Your task to perform on an android device: open chrome privacy settings Image 0: 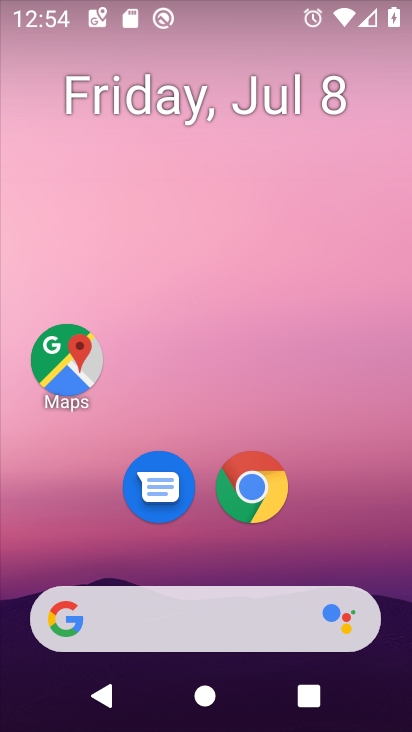
Step 0: drag from (373, 537) to (374, 209)
Your task to perform on an android device: open chrome privacy settings Image 1: 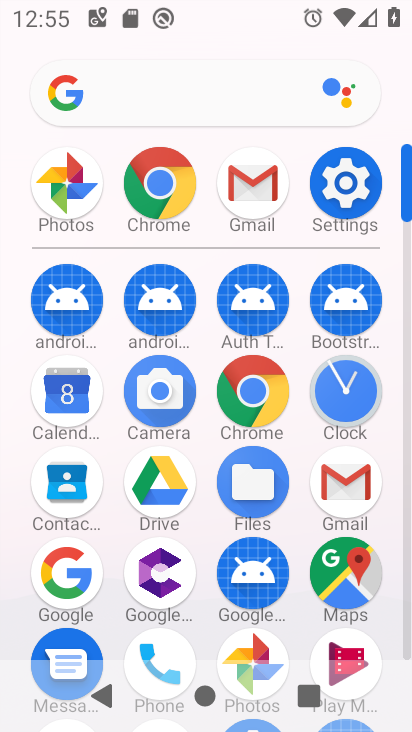
Step 1: click (276, 390)
Your task to perform on an android device: open chrome privacy settings Image 2: 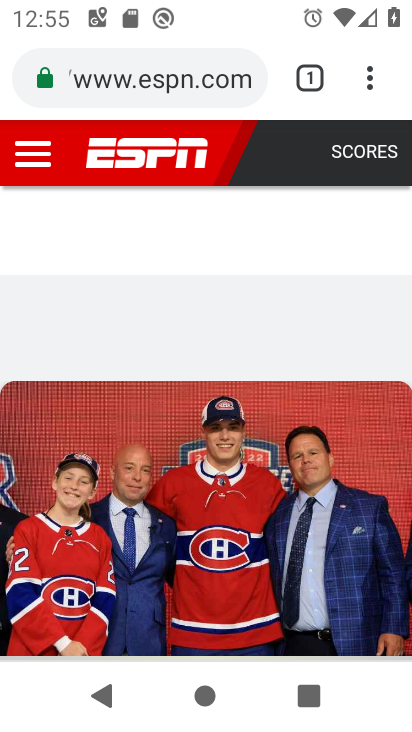
Step 2: click (371, 79)
Your task to perform on an android device: open chrome privacy settings Image 3: 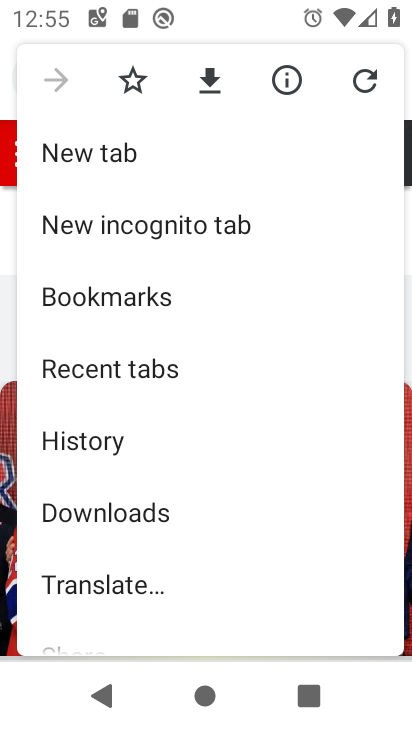
Step 3: drag from (295, 422) to (307, 333)
Your task to perform on an android device: open chrome privacy settings Image 4: 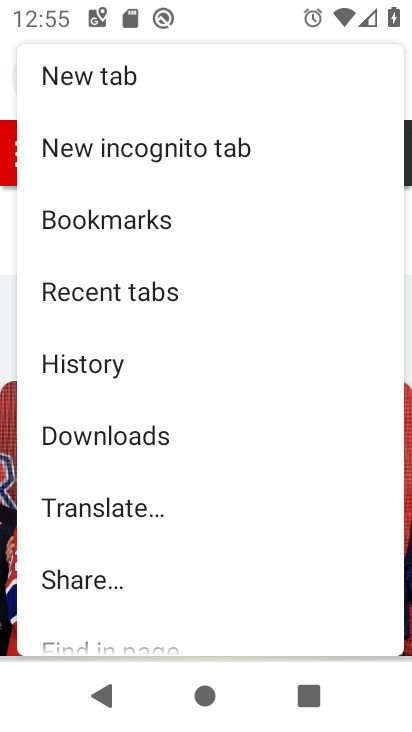
Step 4: drag from (315, 456) to (317, 347)
Your task to perform on an android device: open chrome privacy settings Image 5: 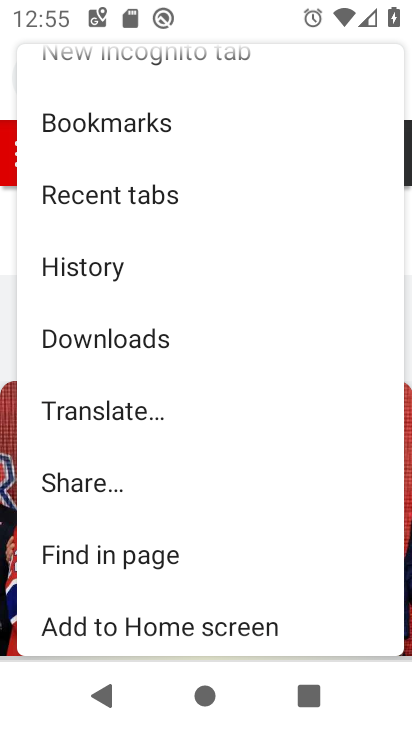
Step 5: drag from (317, 494) to (315, 391)
Your task to perform on an android device: open chrome privacy settings Image 6: 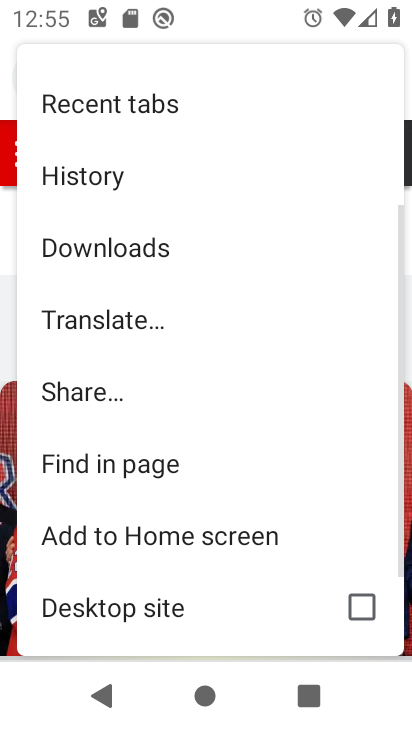
Step 6: drag from (305, 501) to (309, 410)
Your task to perform on an android device: open chrome privacy settings Image 7: 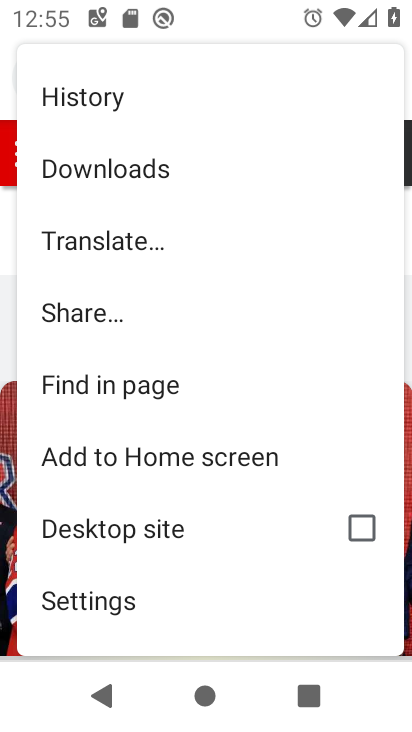
Step 7: drag from (307, 527) to (302, 404)
Your task to perform on an android device: open chrome privacy settings Image 8: 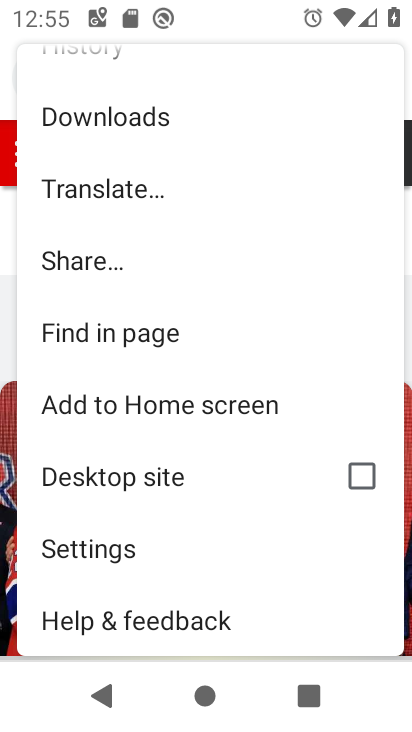
Step 8: click (242, 558)
Your task to perform on an android device: open chrome privacy settings Image 9: 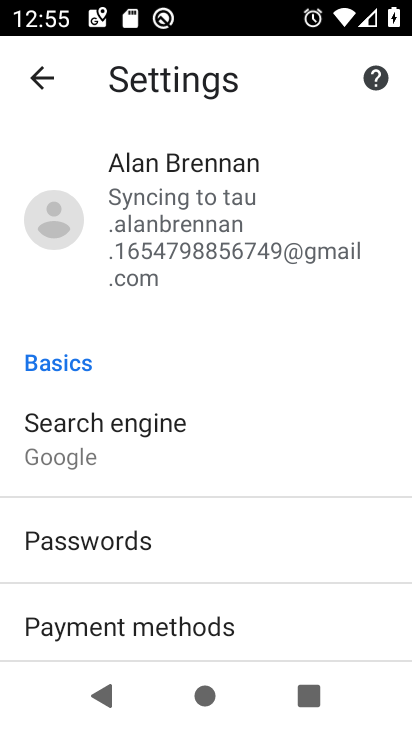
Step 9: drag from (306, 524) to (310, 444)
Your task to perform on an android device: open chrome privacy settings Image 10: 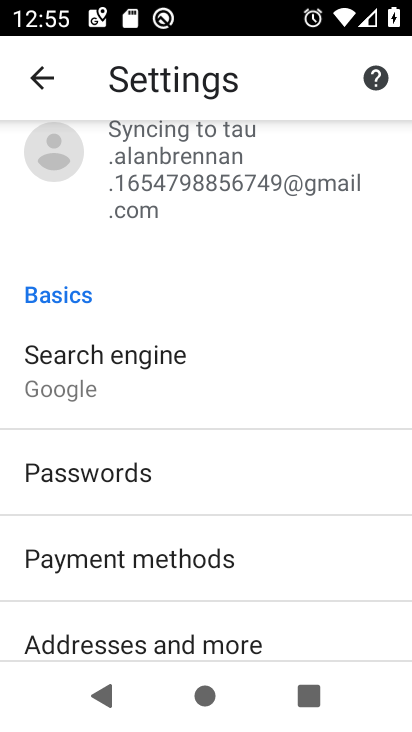
Step 10: drag from (316, 536) to (331, 419)
Your task to perform on an android device: open chrome privacy settings Image 11: 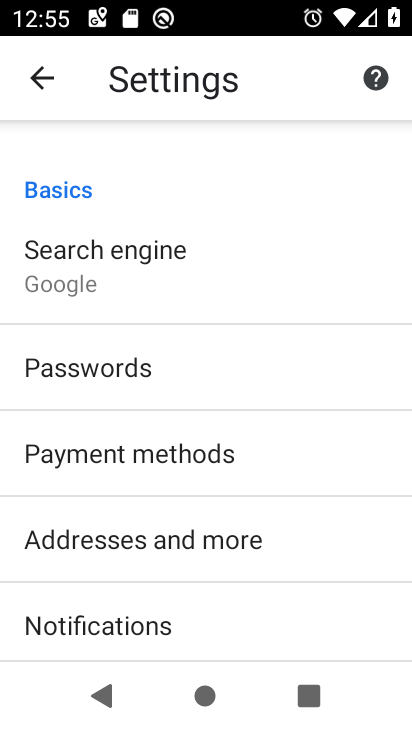
Step 11: drag from (323, 560) to (330, 460)
Your task to perform on an android device: open chrome privacy settings Image 12: 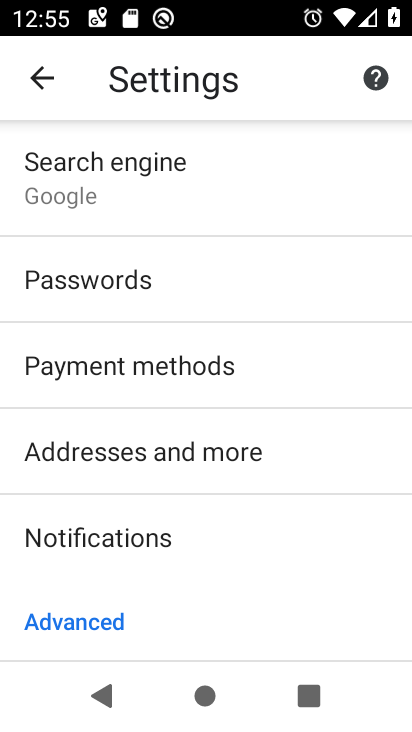
Step 12: drag from (330, 556) to (343, 452)
Your task to perform on an android device: open chrome privacy settings Image 13: 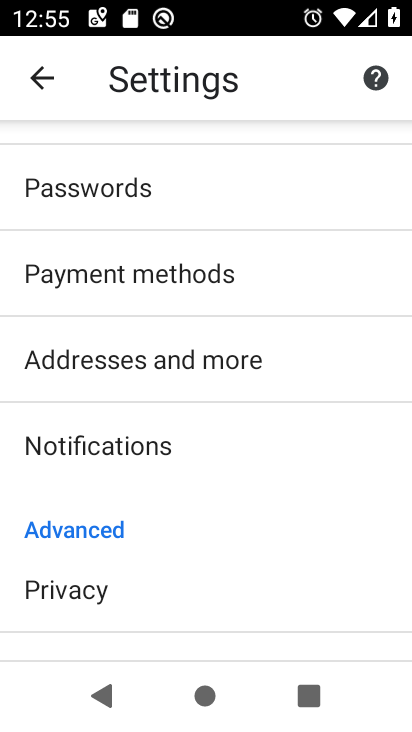
Step 13: drag from (327, 552) to (328, 455)
Your task to perform on an android device: open chrome privacy settings Image 14: 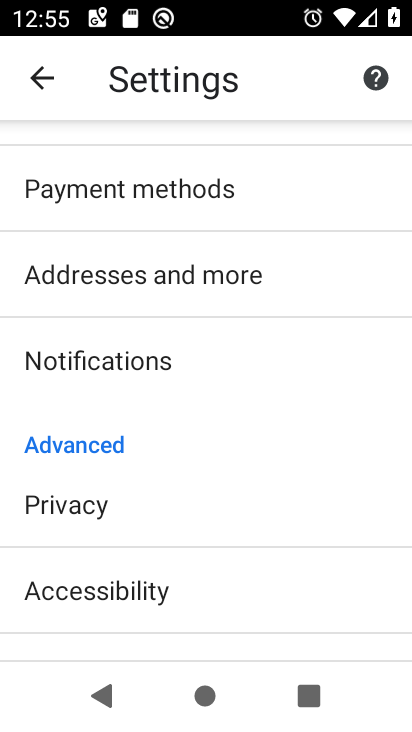
Step 14: drag from (324, 575) to (332, 470)
Your task to perform on an android device: open chrome privacy settings Image 15: 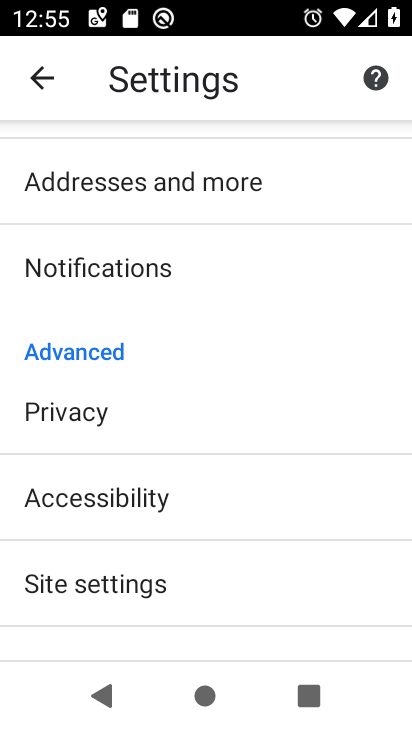
Step 15: click (178, 418)
Your task to perform on an android device: open chrome privacy settings Image 16: 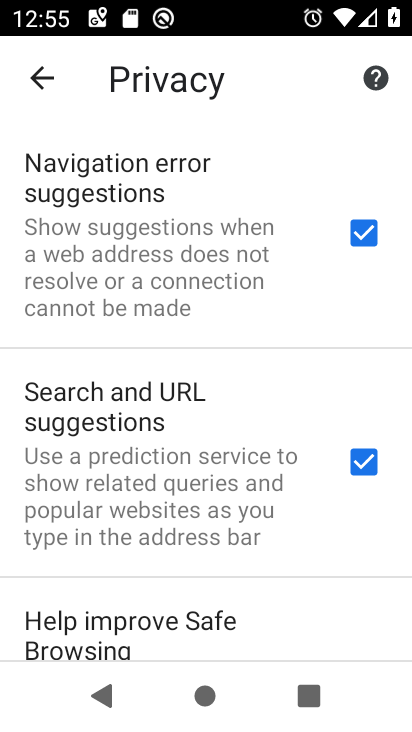
Step 16: task complete